Your task to perform on an android device: Go to settings Image 0: 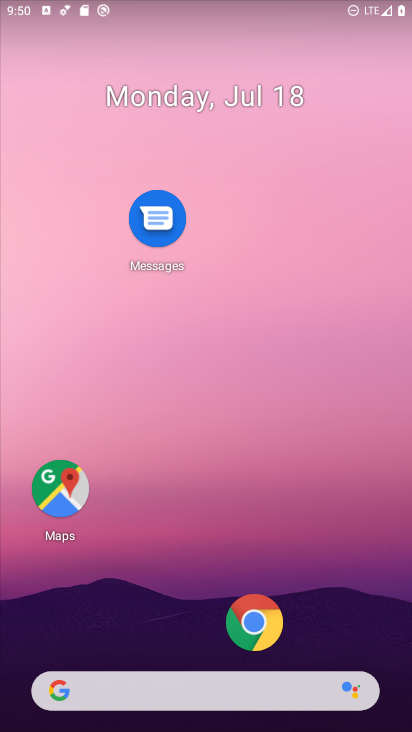
Step 0: drag from (199, 692) to (409, 198)
Your task to perform on an android device: Go to settings Image 1: 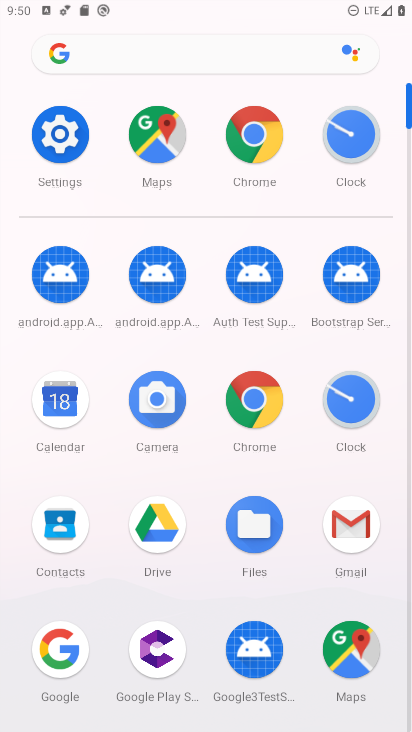
Step 1: click (65, 150)
Your task to perform on an android device: Go to settings Image 2: 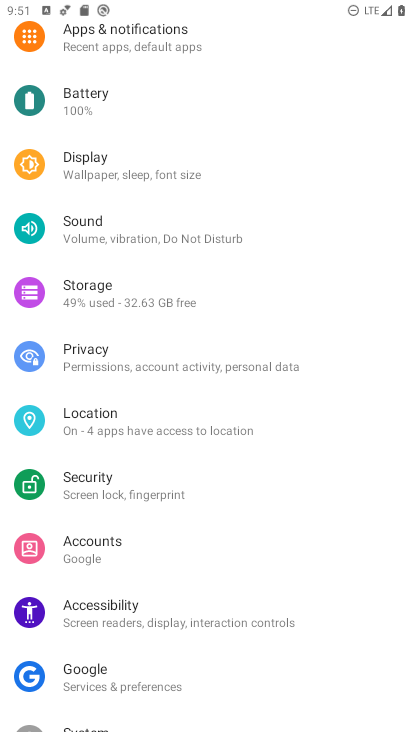
Step 2: task complete